Your task to perform on an android device: Go to CNN.com Image 0: 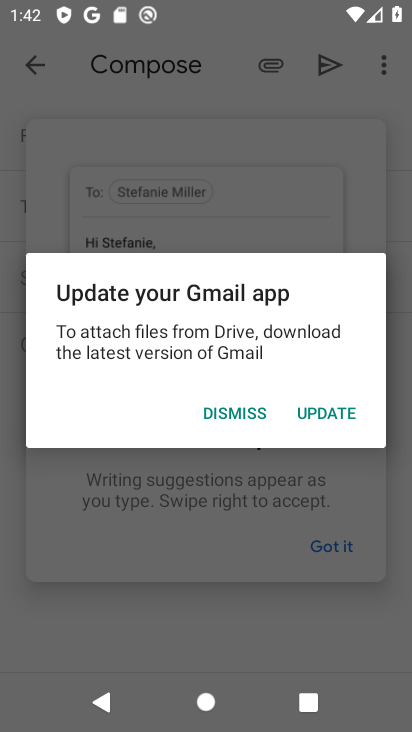
Step 0: press home button
Your task to perform on an android device: Go to CNN.com Image 1: 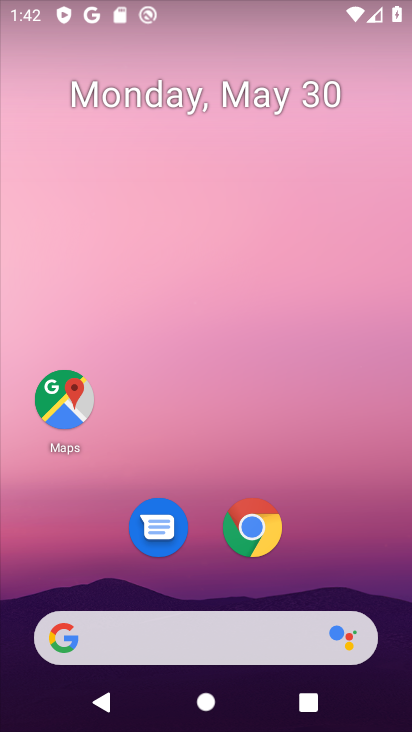
Step 1: click (379, 721)
Your task to perform on an android device: Go to CNN.com Image 2: 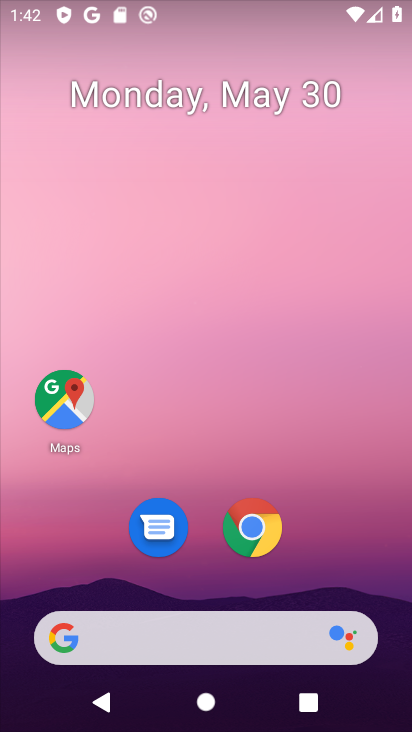
Step 2: drag from (44, 531) to (187, 283)
Your task to perform on an android device: Go to CNN.com Image 3: 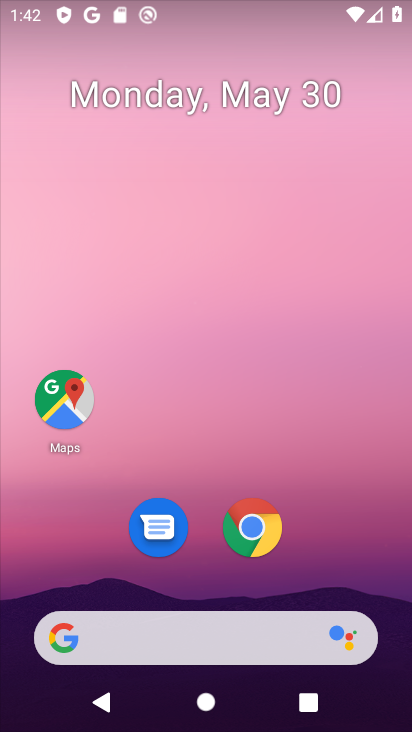
Step 3: click (161, 643)
Your task to perform on an android device: Go to CNN.com Image 4: 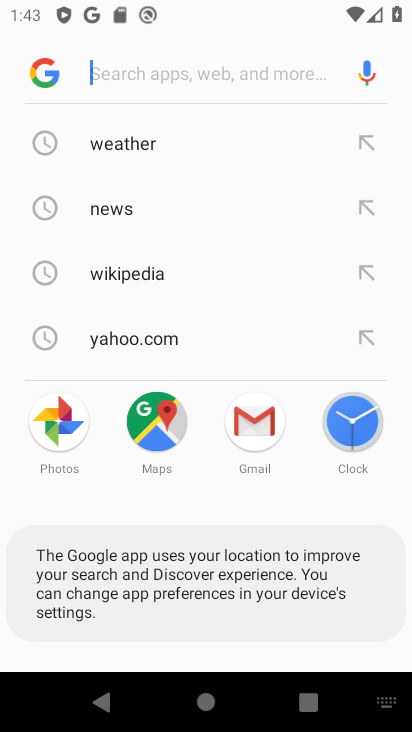
Step 4: click (135, 67)
Your task to perform on an android device: Go to CNN.com Image 5: 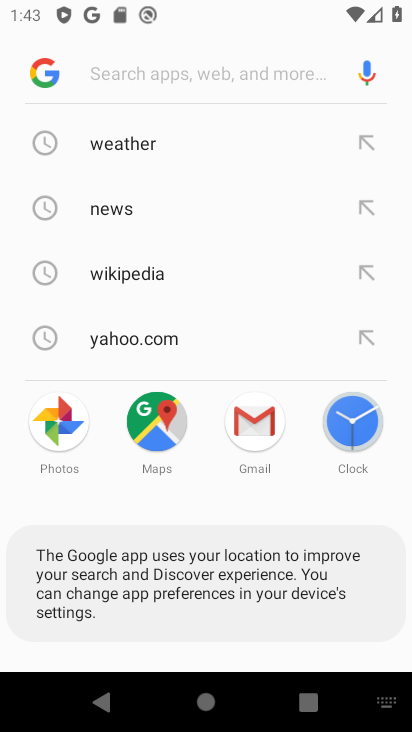
Step 5: click (136, 67)
Your task to perform on an android device: Go to CNN.com Image 6: 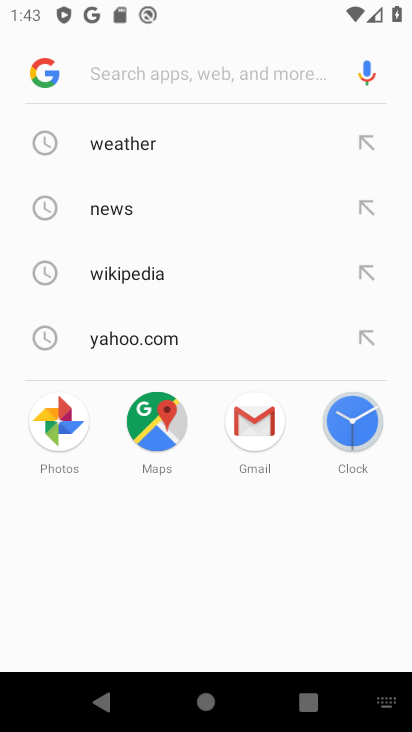
Step 6: press home button
Your task to perform on an android device: Go to CNN.com Image 7: 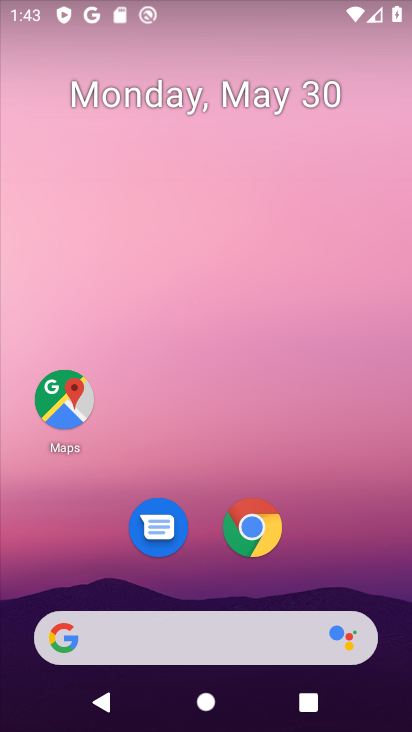
Step 7: click (244, 519)
Your task to perform on an android device: Go to CNN.com Image 8: 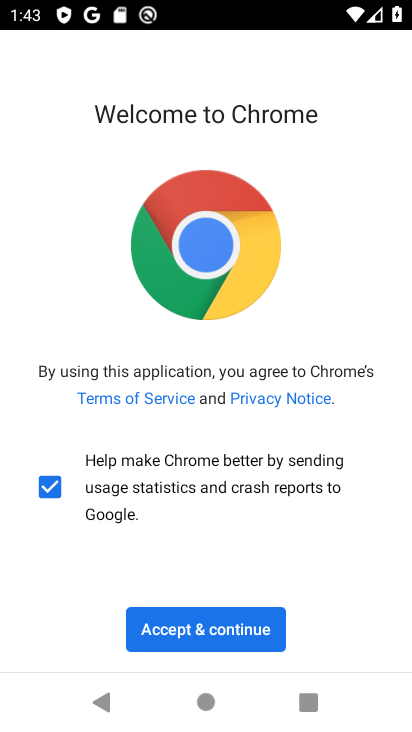
Step 8: click (239, 628)
Your task to perform on an android device: Go to CNN.com Image 9: 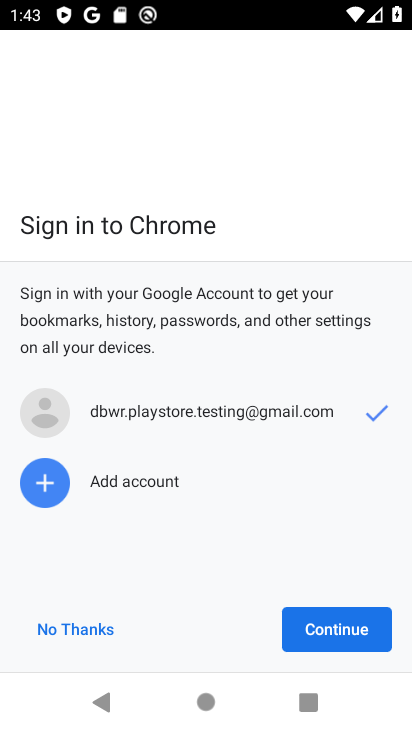
Step 9: click (72, 626)
Your task to perform on an android device: Go to CNN.com Image 10: 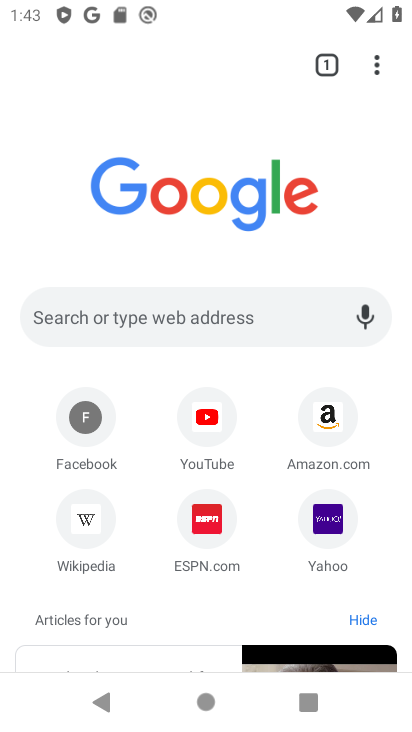
Step 10: click (146, 317)
Your task to perform on an android device: Go to CNN.com Image 11: 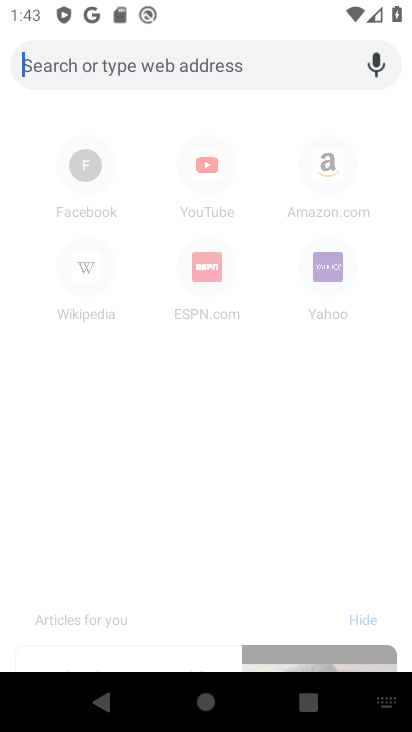
Step 11: type "CNN.com"
Your task to perform on an android device: Go to CNN.com Image 12: 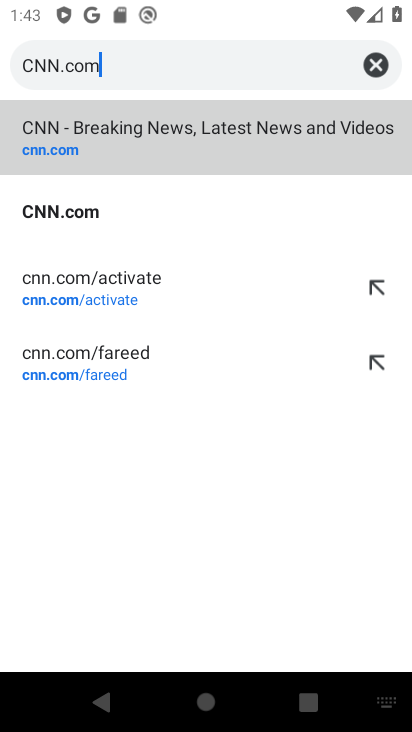
Step 12: type ""
Your task to perform on an android device: Go to CNN.com Image 13: 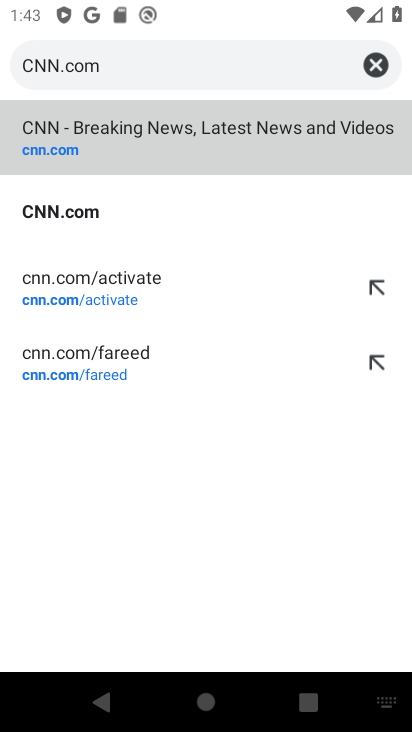
Step 13: click (58, 205)
Your task to perform on an android device: Go to CNN.com Image 14: 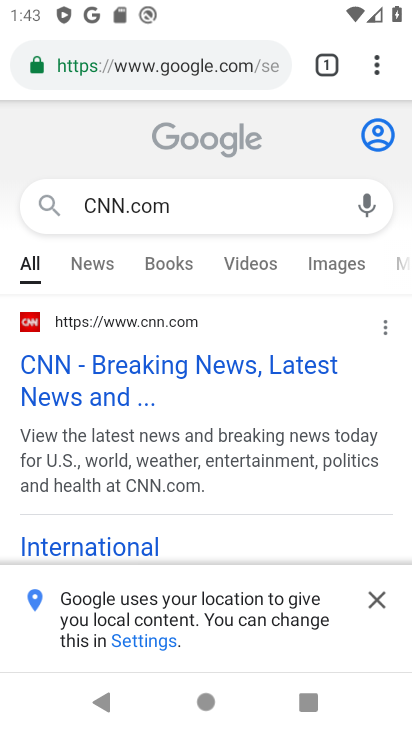
Step 14: click (90, 372)
Your task to perform on an android device: Go to CNN.com Image 15: 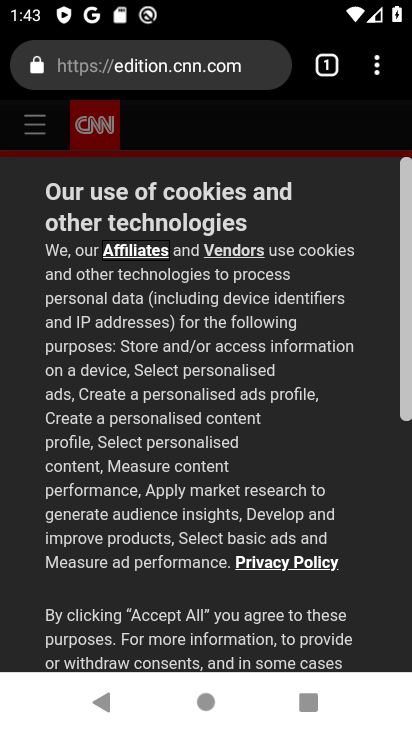
Step 15: task complete